Your task to perform on an android device: make emails show in primary in the gmail app Image 0: 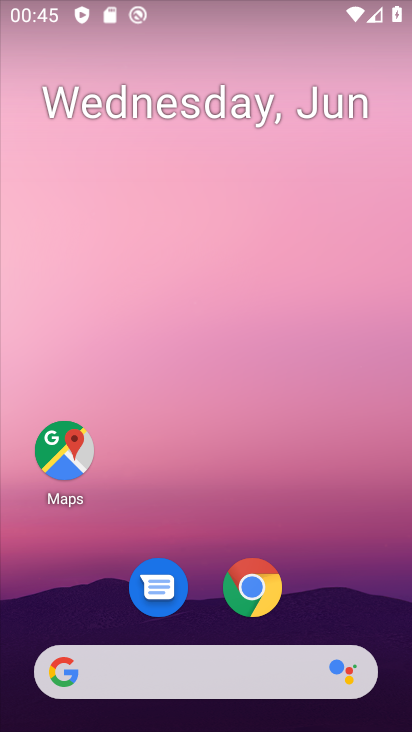
Step 0: drag from (356, 542) to (214, 2)
Your task to perform on an android device: make emails show in primary in the gmail app Image 1: 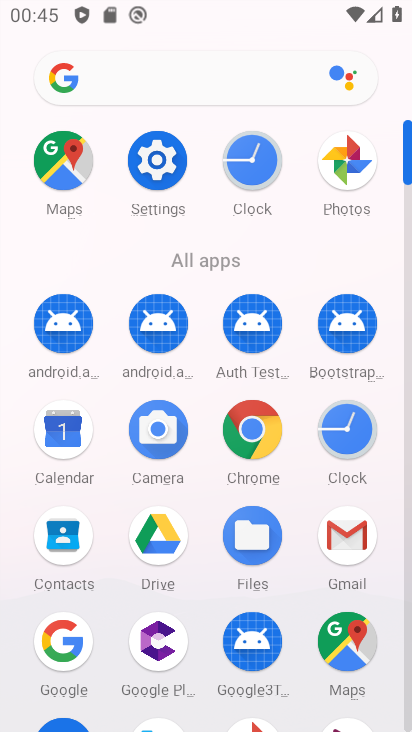
Step 1: click (339, 535)
Your task to perform on an android device: make emails show in primary in the gmail app Image 2: 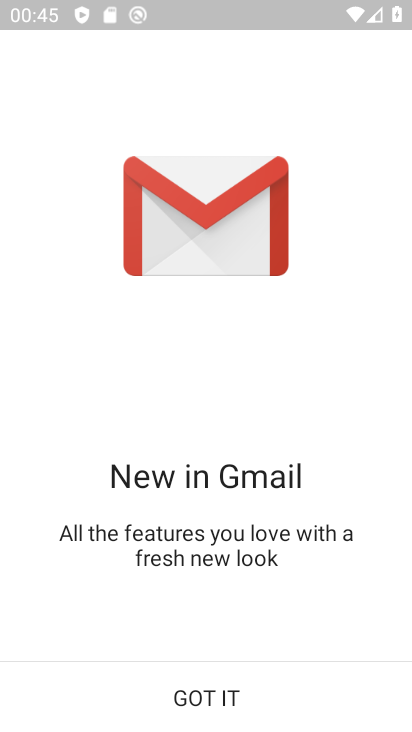
Step 2: click (253, 684)
Your task to perform on an android device: make emails show in primary in the gmail app Image 3: 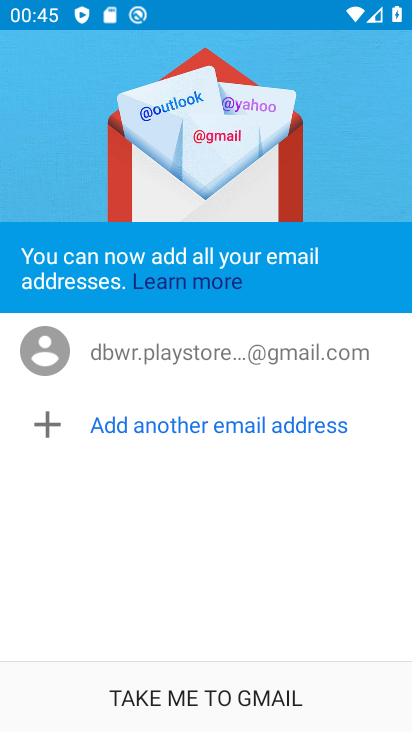
Step 3: click (216, 698)
Your task to perform on an android device: make emails show in primary in the gmail app Image 4: 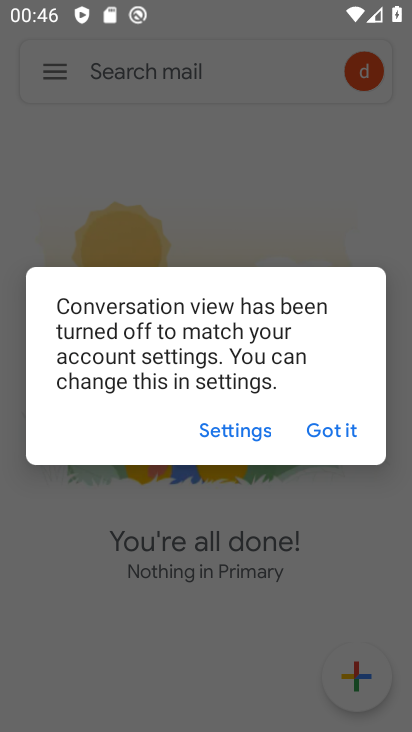
Step 4: click (347, 425)
Your task to perform on an android device: make emails show in primary in the gmail app Image 5: 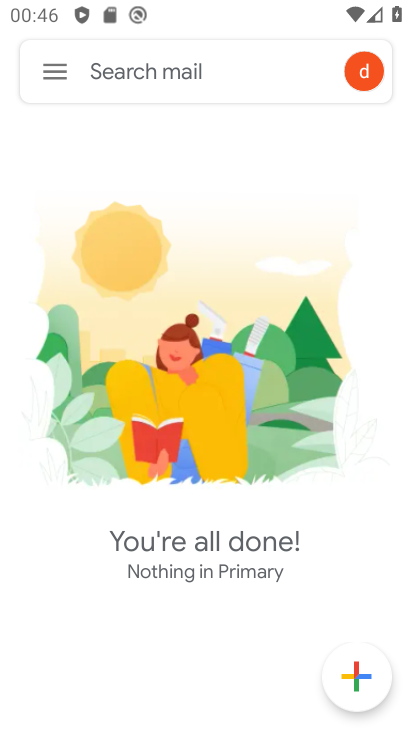
Step 5: click (51, 60)
Your task to perform on an android device: make emails show in primary in the gmail app Image 6: 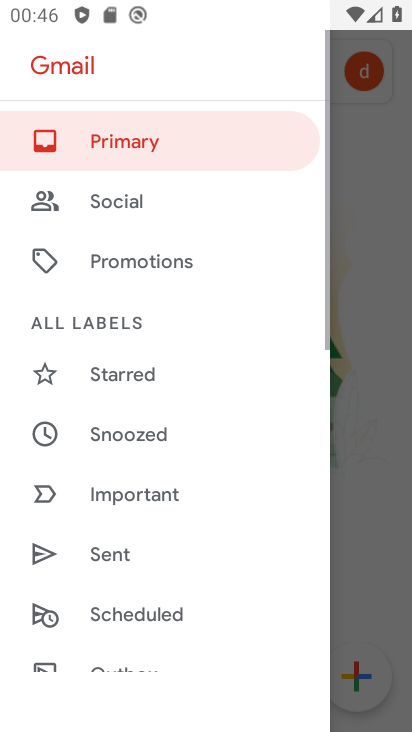
Step 6: drag from (146, 613) to (191, 104)
Your task to perform on an android device: make emails show in primary in the gmail app Image 7: 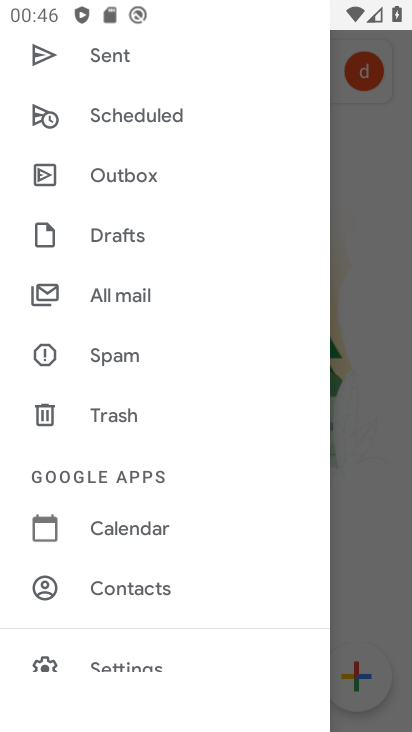
Step 7: drag from (133, 539) to (192, 117)
Your task to perform on an android device: make emails show in primary in the gmail app Image 8: 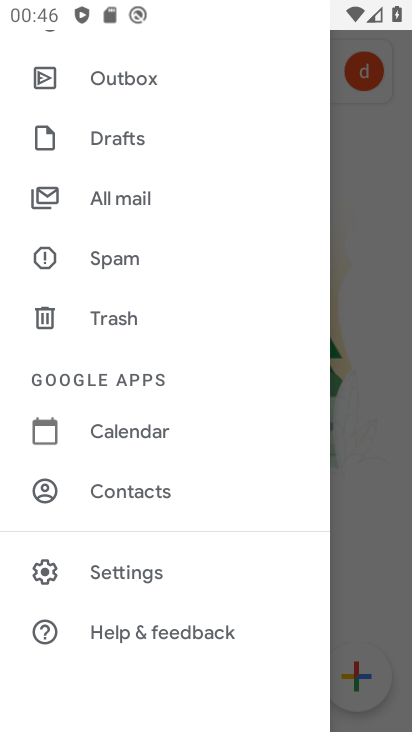
Step 8: click (136, 565)
Your task to perform on an android device: make emails show in primary in the gmail app Image 9: 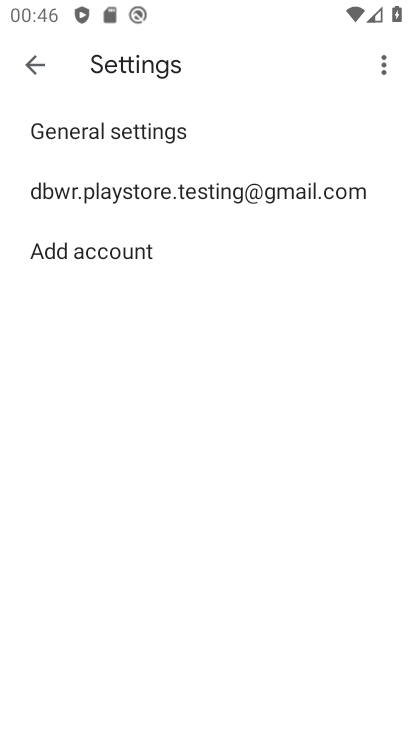
Step 9: click (300, 186)
Your task to perform on an android device: make emails show in primary in the gmail app Image 10: 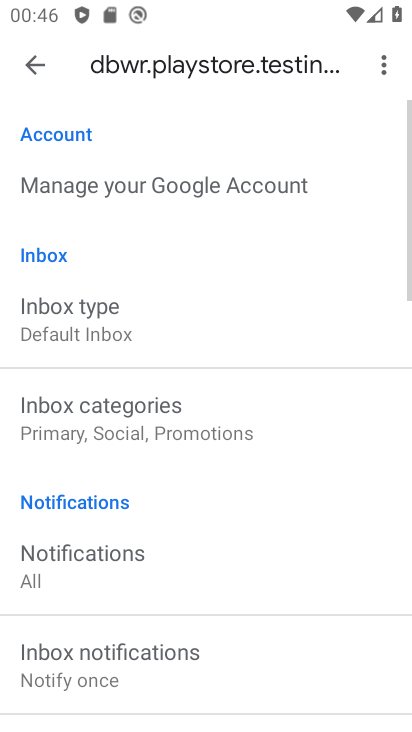
Step 10: click (120, 319)
Your task to perform on an android device: make emails show in primary in the gmail app Image 11: 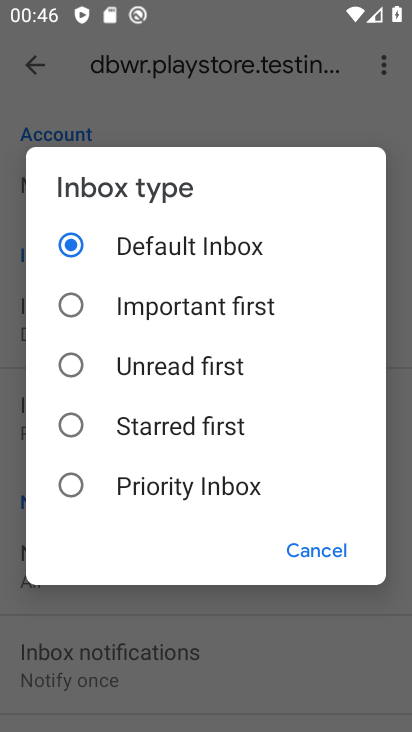
Step 11: click (309, 560)
Your task to perform on an android device: make emails show in primary in the gmail app Image 12: 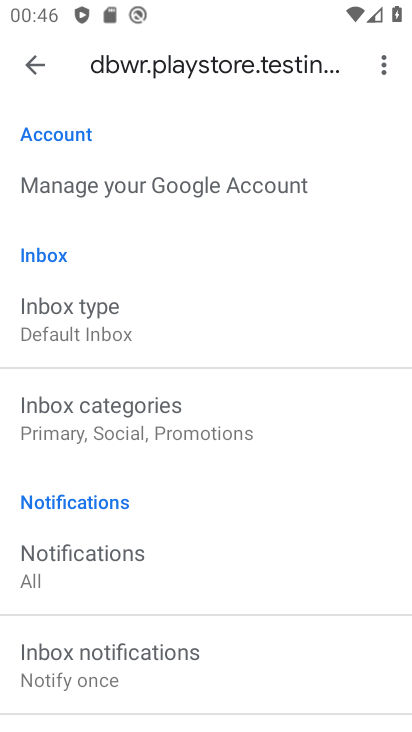
Step 12: click (177, 434)
Your task to perform on an android device: make emails show in primary in the gmail app Image 13: 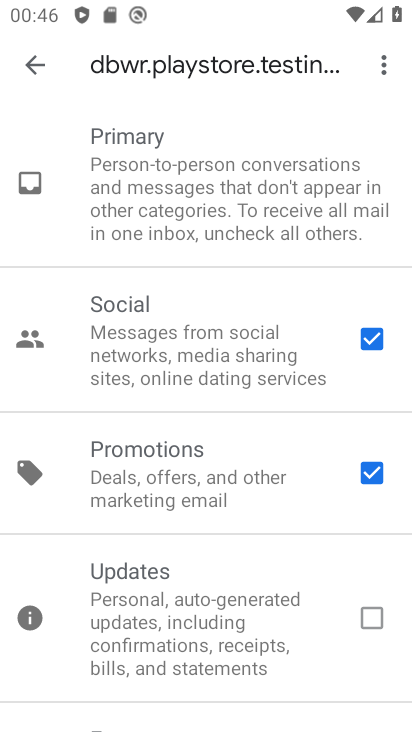
Step 13: task complete